Your task to perform on an android device: open a bookmark in the chrome app Image 0: 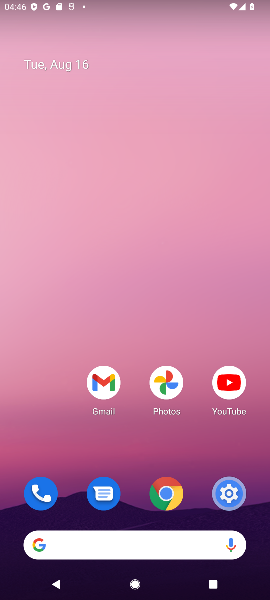
Step 0: press home button
Your task to perform on an android device: open a bookmark in the chrome app Image 1: 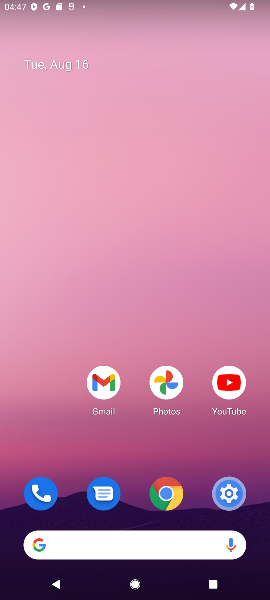
Step 1: drag from (71, 482) to (111, 94)
Your task to perform on an android device: open a bookmark in the chrome app Image 2: 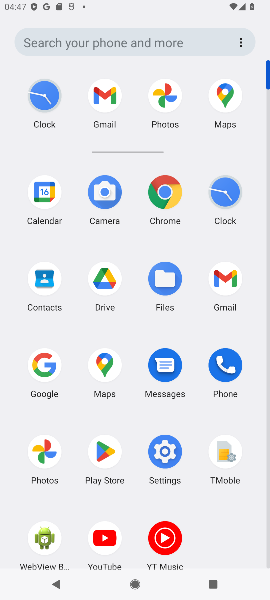
Step 2: click (166, 193)
Your task to perform on an android device: open a bookmark in the chrome app Image 3: 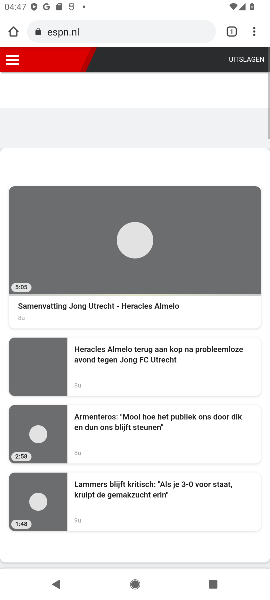
Step 3: click (254, 28)
Your task to perform on an android device: open a bookmark in the chrome app Image 4: 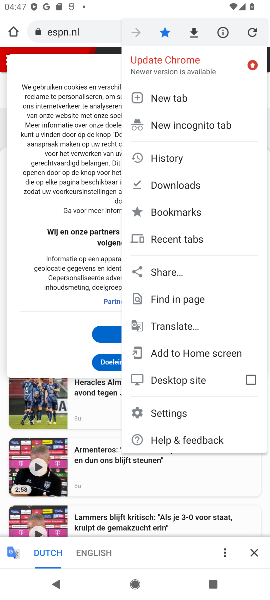
Step 4: click (206, 212)
Your task to perform on an android device: open a bookmark in the chrome app Image 5: 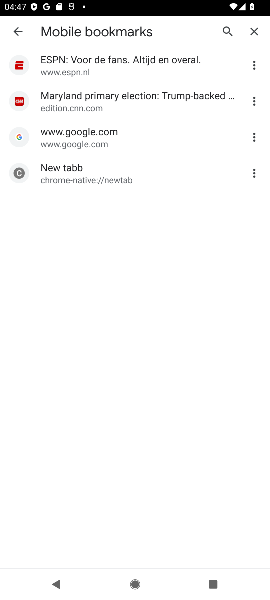
Step 5: task complete